Your task to perform on an android device: Open Google Chrome Image 0: 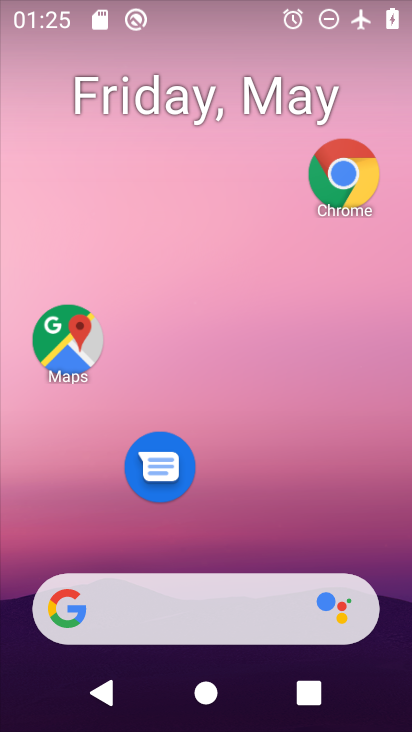
Step 0: drag from (258, 489) to (295, 198)
Your task to perform on an android device: Open Google Chrome Image 1: 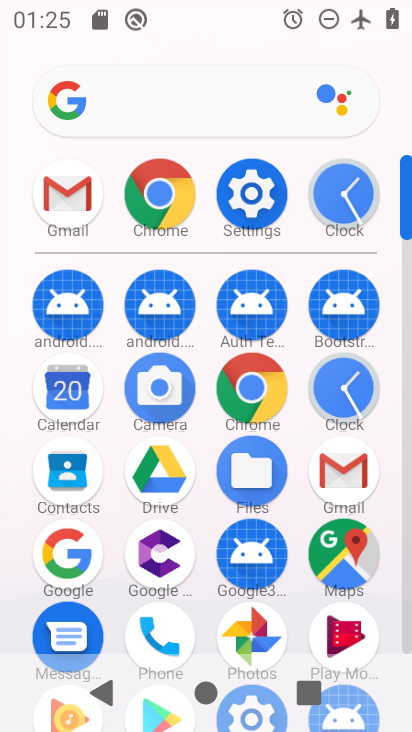
Step 1: click (57, 543)
Your task to perform on an android device: Open Google Chrome Image 2: 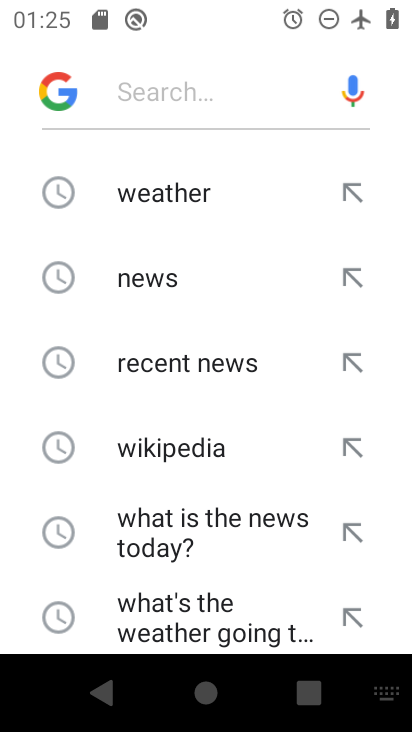
Step 2: task complete